Your task to perform on an android device: move a message to another label in the gmail app Image 0: 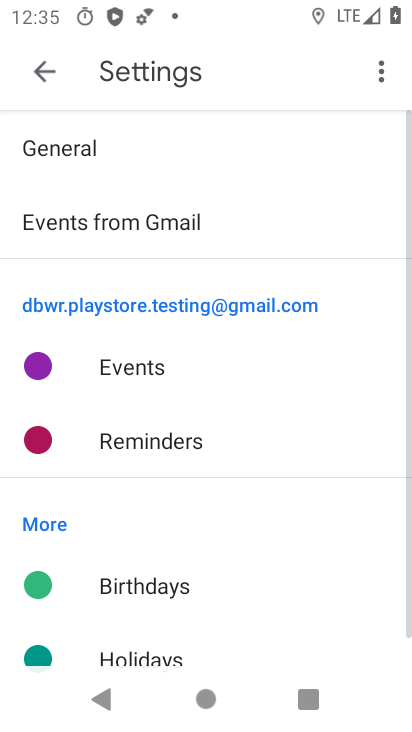
Step 0: press home button
Your task to perform on an android device: move a message to another label in the gmail app Image 1: 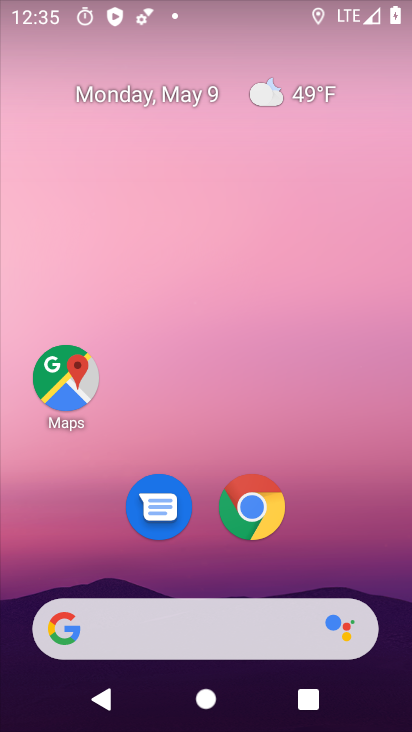
Step 1: drag from (227, 725) to (193, 97)
Your task to perform on an android device: move a message to another label in the gmail app Image 2: 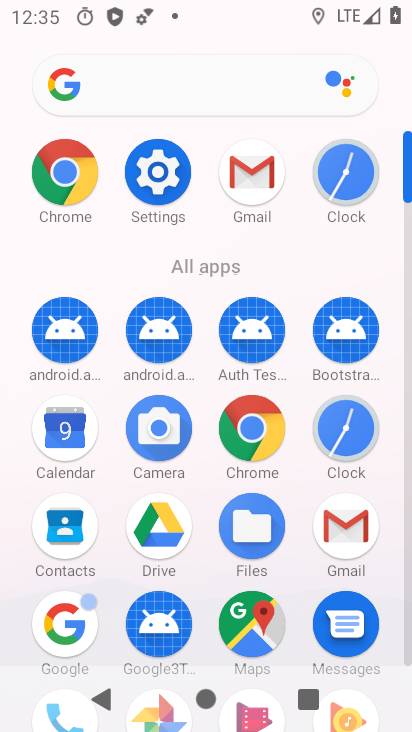
Step 2: click (254, 168)
Your task to perform on an android device: move a message to another label in the gmail app Image 3: 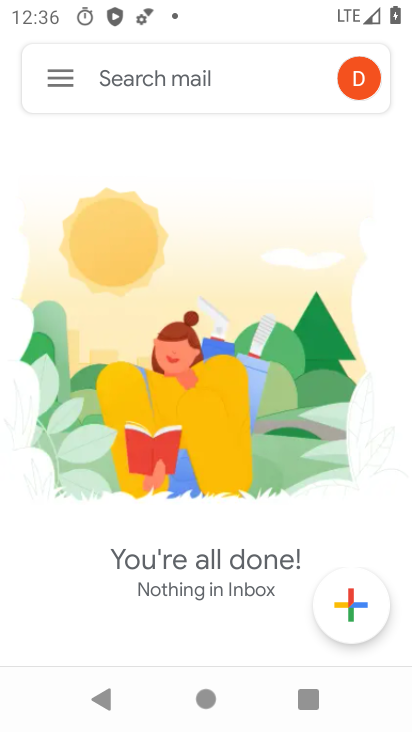
Step 3: task complete